Your task to perform on an android device: What is the recent news? Image 0: 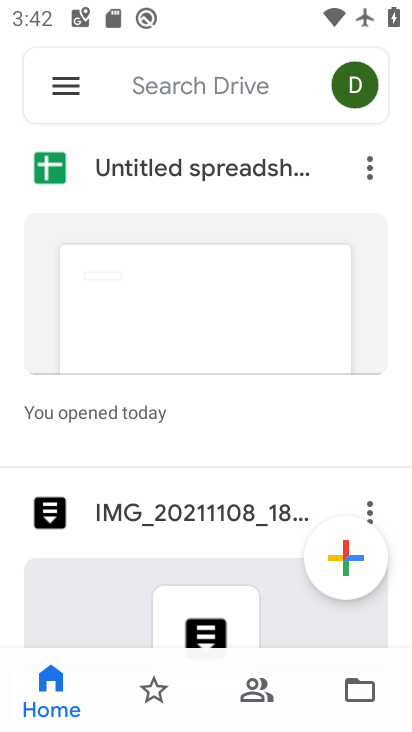
Step 0: press home button
Your task to perform on an android device: What is the recent news? Image 1: 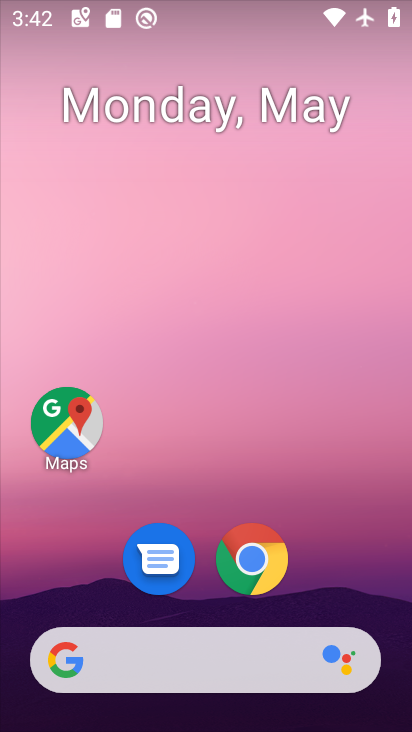
Step 1: drag from (321, 601) to (316, 544)
Your task to perform on an android device: What is the recent news? Image 2: 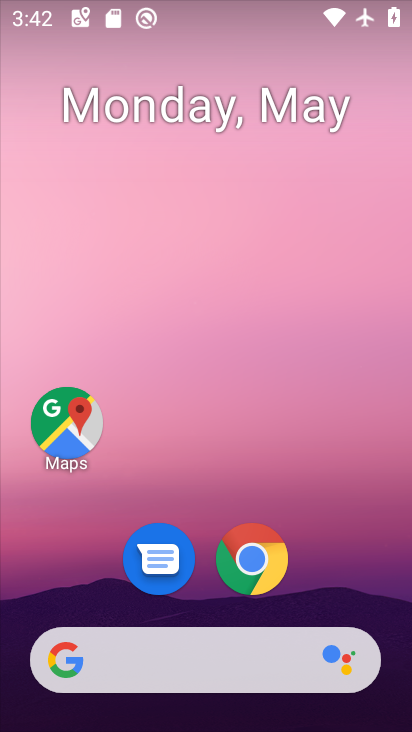
Step 2: click (215, 660)
Your task to perform on an android device: What is the recent news? Image 3: 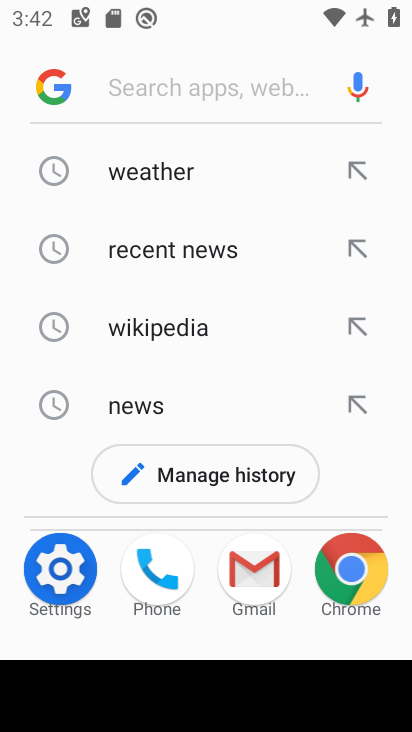
Step 3: click (173, 262)
Your task to perform on an android device: What is the recent news? Image 4: 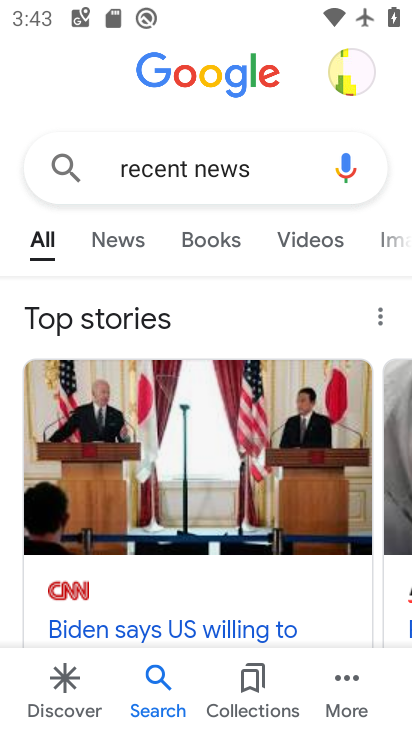
Step 4: task complete